Your task to perform on an android device: Open battery settings Image 0: 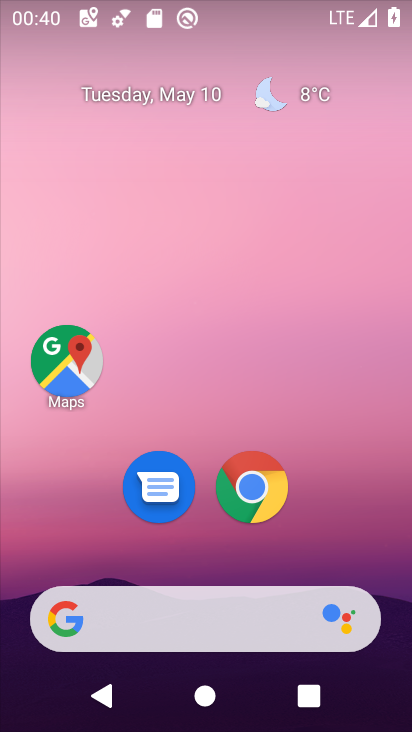
Step 0: drag from (203, 559) to (261, 2)
Your task to perform on an android device: Open battery settings Image 1: 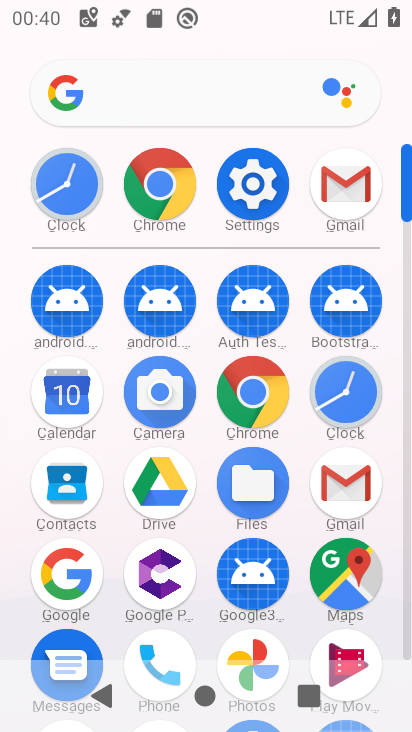
Step 1: click (251, 176)
Your task to perform on an android device: Open battery settings Image 2: 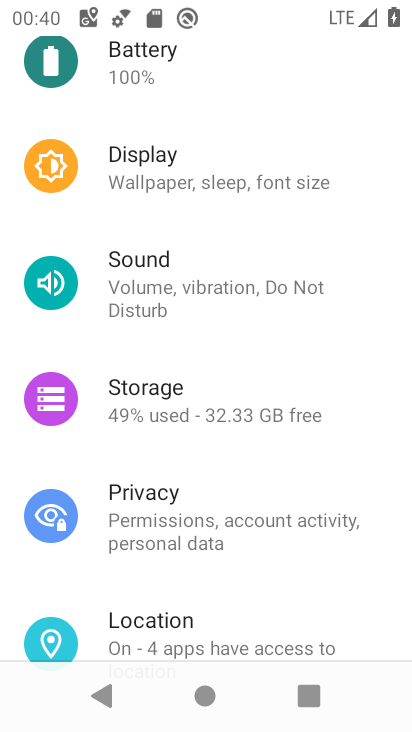
Step 2: click (185, 56)
Your task to perform on an android device: Open battery settings Image 3: 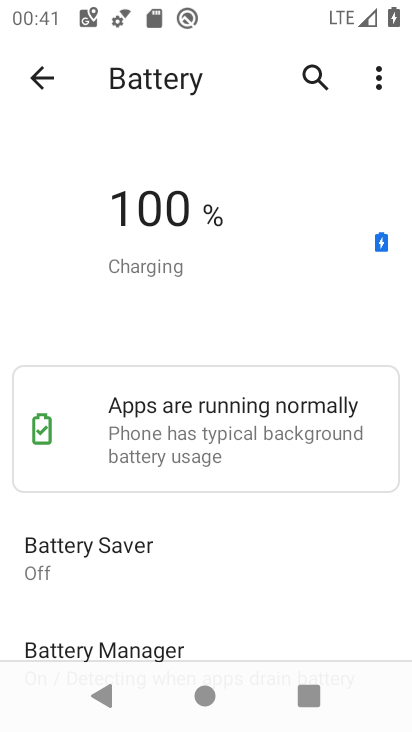
Step 3: task complete